Your task to perform on an android device: Search for vegetarian restaurants on Maps Image 0: 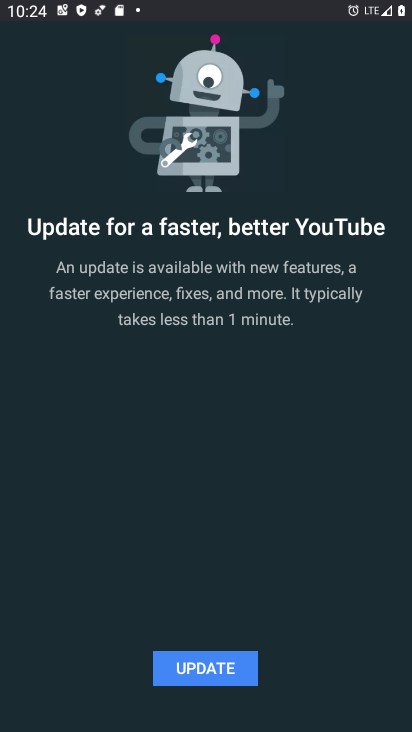
Step 0: press home button
Your task to perform on an android device: Search for vegetarian restaurants on Maps Image 1: 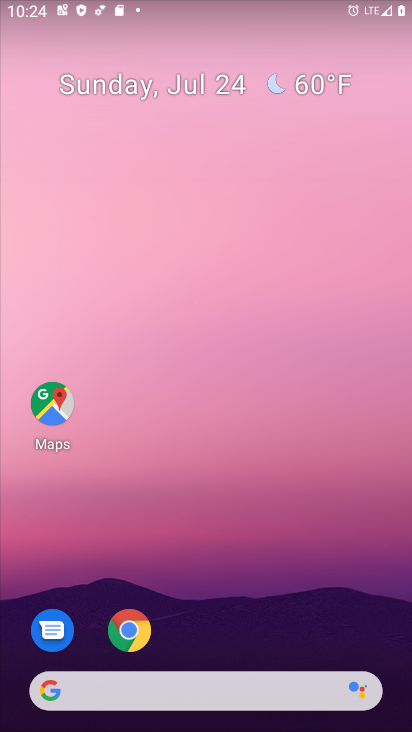
Step 1: click (70, 397)
Your task to perform on an android device: Search for vegetarian restaurants on Maps Image 2: 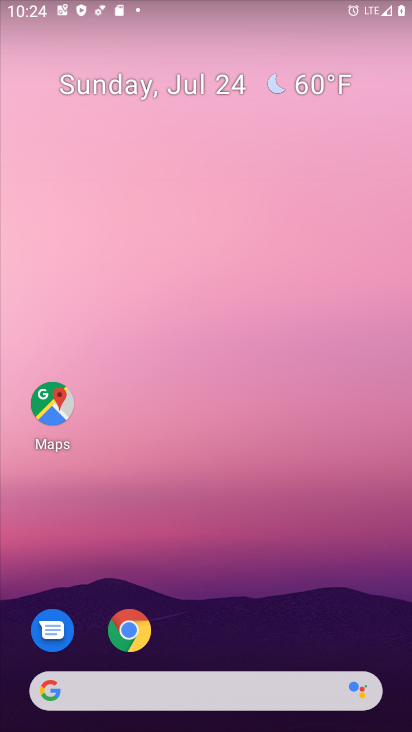
Step 2: click (47, 403)
Your task to perform on an android device: Search for vegetarian restaurants on Maps Image 3: 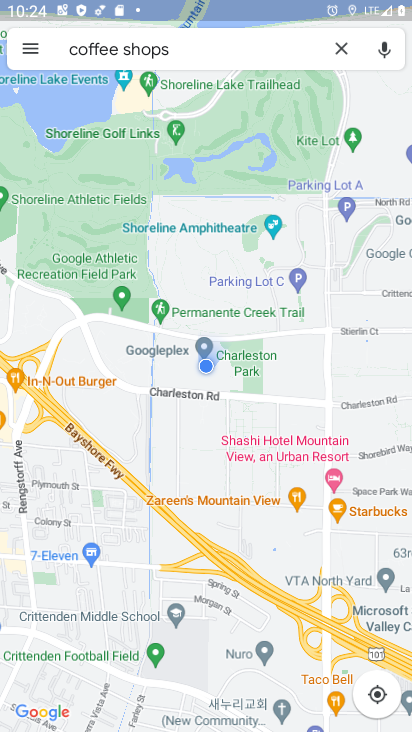
Step 3: click (337, 51)
Your task to perform on an android device: Search for vegetarian restaurants on Maps Image 4: 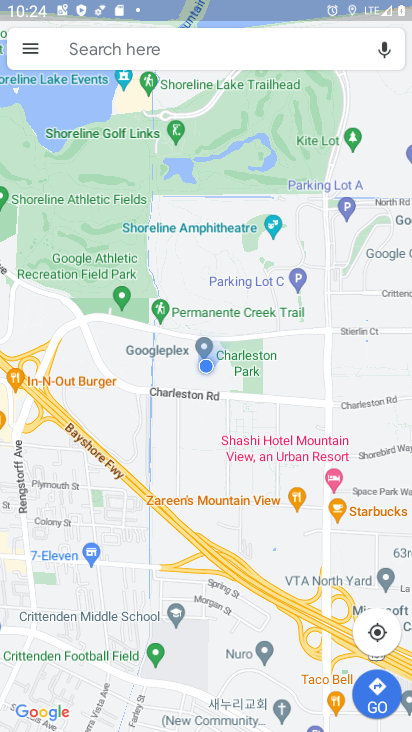
Step 4: click (201, 49)
Your task to perform on an android device: Search for vegetarian restaurants on Maps Image 5: 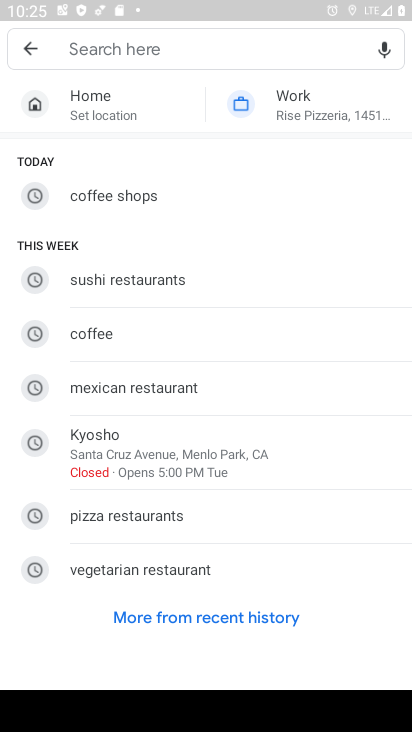
Step 5: type "vegetarian restaurants"
Your task to perform on an android device: Search for vegetarian restaurants on Maps Image 6: 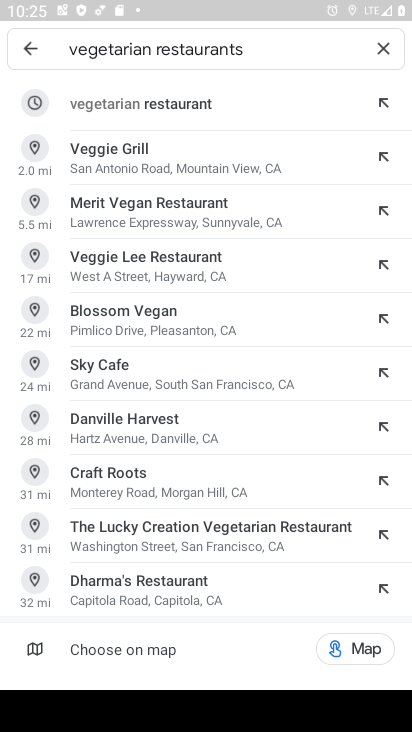
Step 6: click (212, 109)
Your task to perform on an android device: Search for vegetarian restaurants on Maps Image 7: 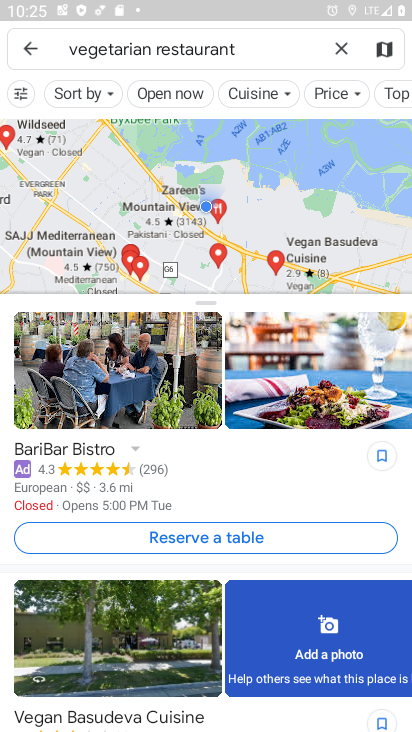
Step 7: task complete